Your task to perform on an android device: find photos in the google photos app Image 0: 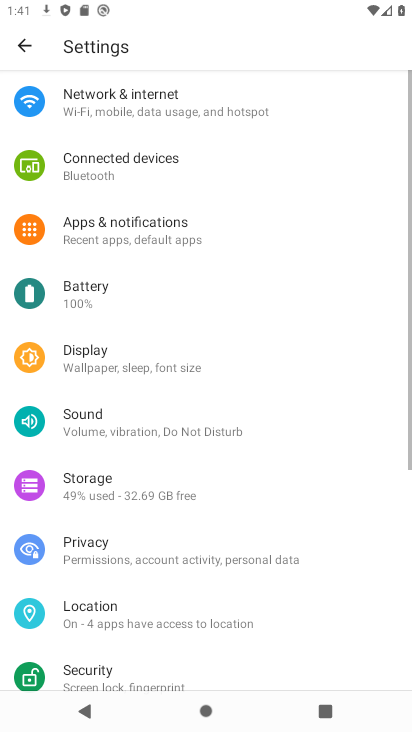
Step 0: press home button
Your task to perform on an android device: find photos in the google photos app Image 1: 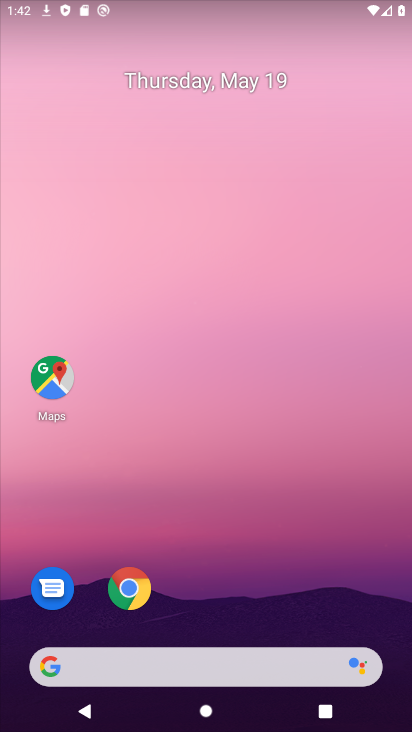
Step 1: drag from (224, 561) to (167, 61)
Your task to perform on an android device: find photos in the google photos app Image 2: 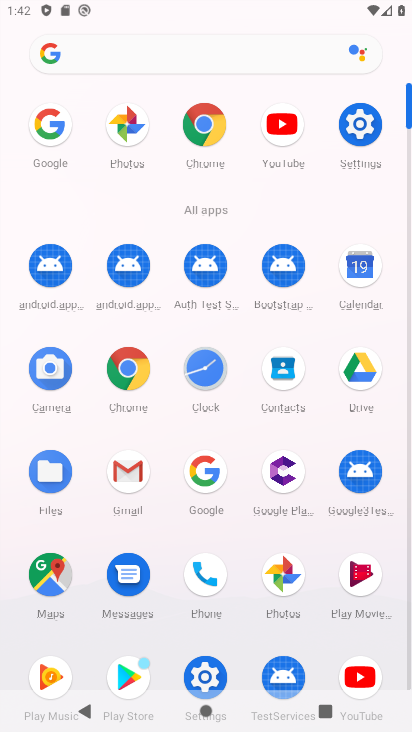
Step 2: click (289, 569)
Your task to perform on an android device: find photos in the google photos app Image 3: 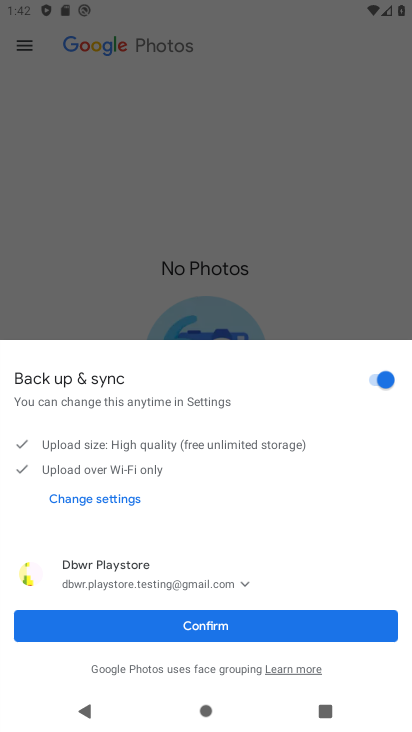
Step 3: click (280, 632)
Your task to perform on an android device: find photos in the google photos app Image 4: 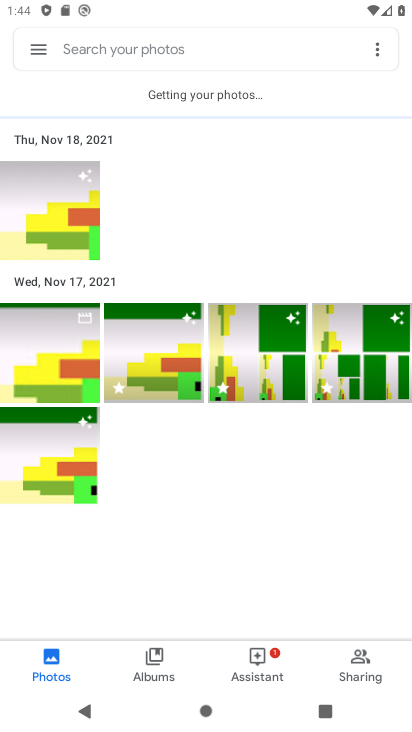
Step 4: task complete